Your task to perform on an android device: change your default location settings in chrome Image 0: 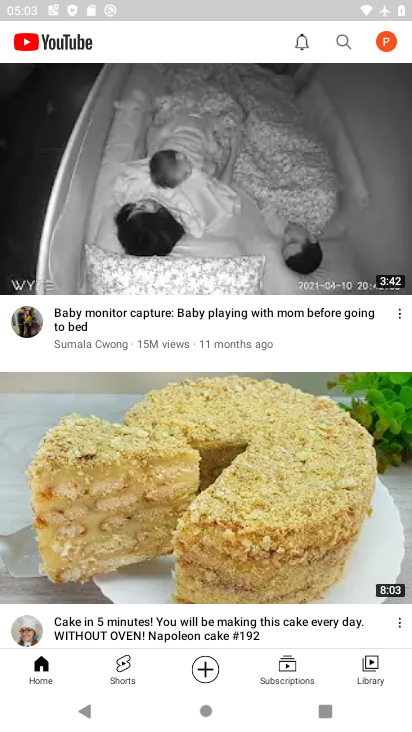
Step 0: press home button
Your task to perform on an android device: change your default location settings in chrome Image 1: 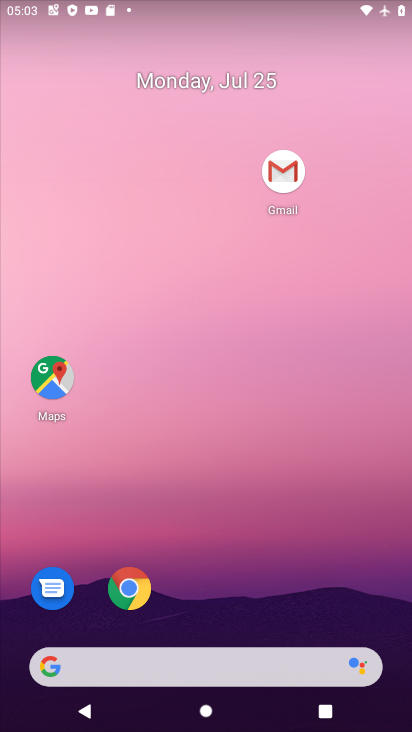
Step 1: drag from (336, 603) to (171, 51)
Your task to perform on an android device: change your default location settings in chrome Image 2: 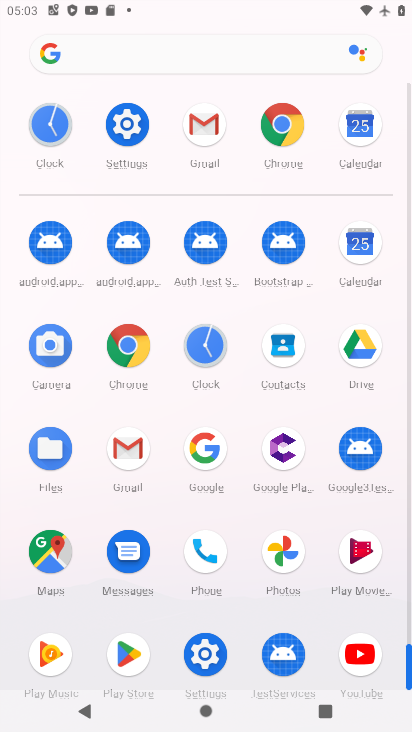
Step 2: click (279, 129)
Your task to perform on an android device: change your default location settings in chrome Image 3: 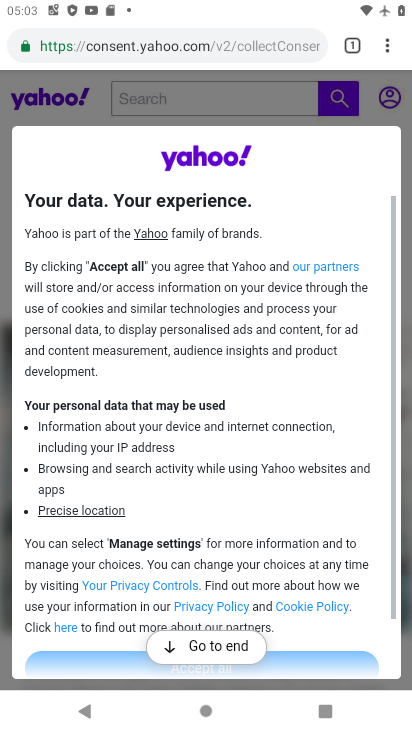
Step 3: drag from (380, 38) to (231, 538)
Your task to perform on an android device: change your default location settings in chrome Image 4: 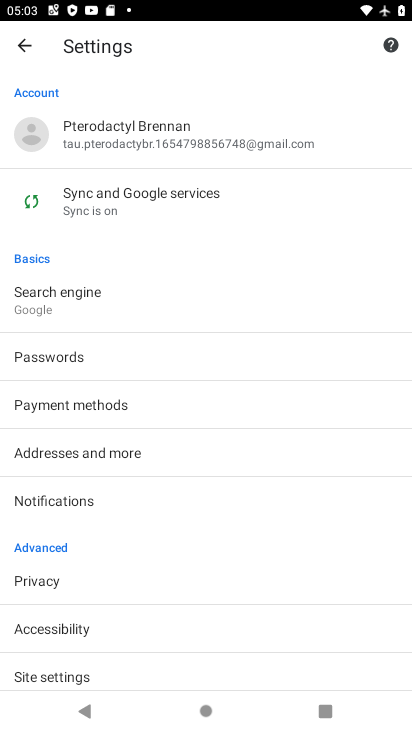
Step 4: drag from (228, 630) to (234, 246)
Your task to perform on an android device: change your default location settings in chrome Image 5: 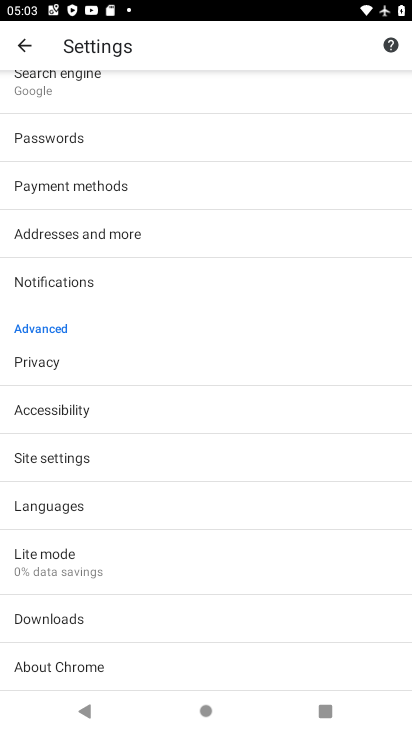
Step 5: click (91, 462)
Your task to perform on an android device: change your default location settings in chrome Image 6: 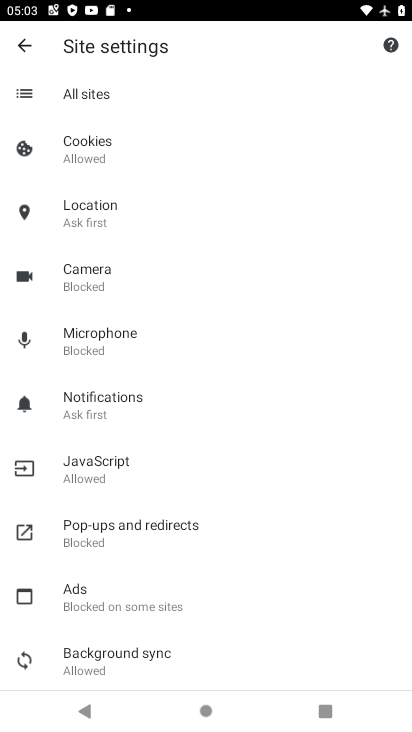
Step 6: click (113, 221)
Your task to perform on an android device: change your default location settings in chrome Image 7: 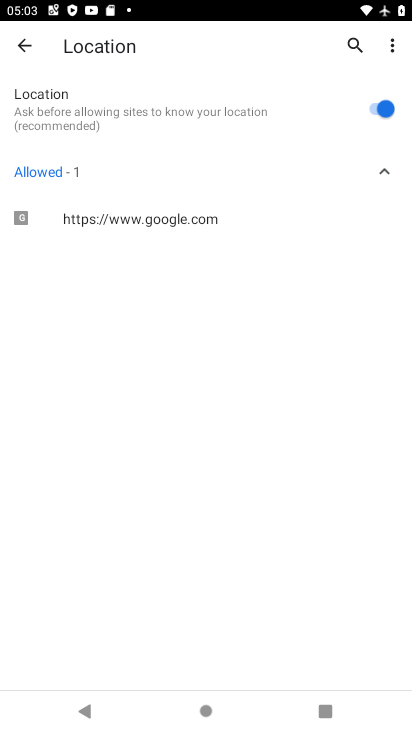
Step 7: click (376, 93)
Your task to perform on an android device: change your default location settings in chrome Image 8: 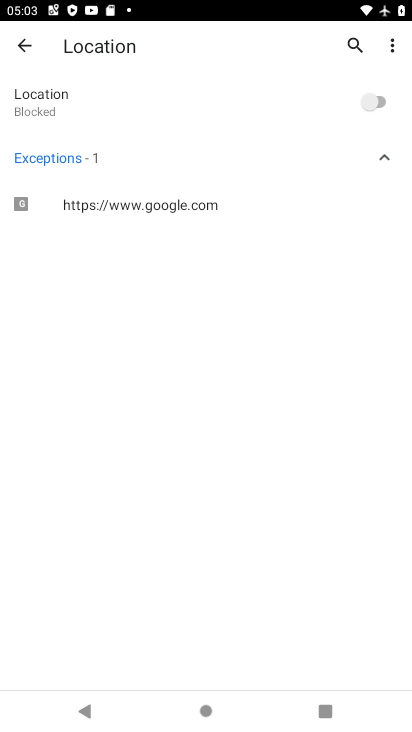
Step 8: task complete